Your task to perform on an android device: turn on showing notifications on the lock screen Image 0: 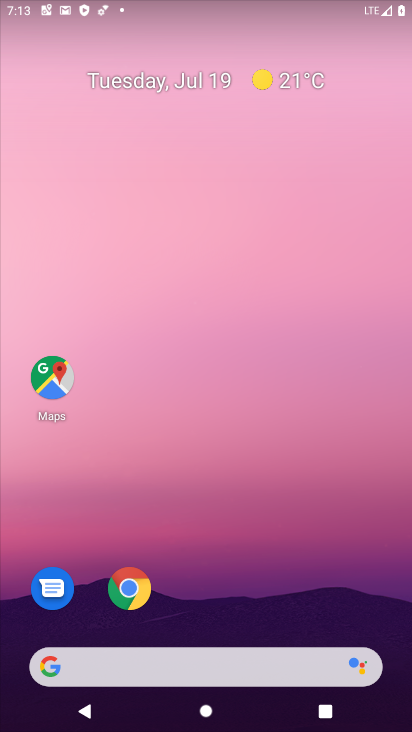
Step 0: drag from (245, 573) to (274, 119)
Your task to perform on an android device: turn on showing notifications on the lock screen Image 1: 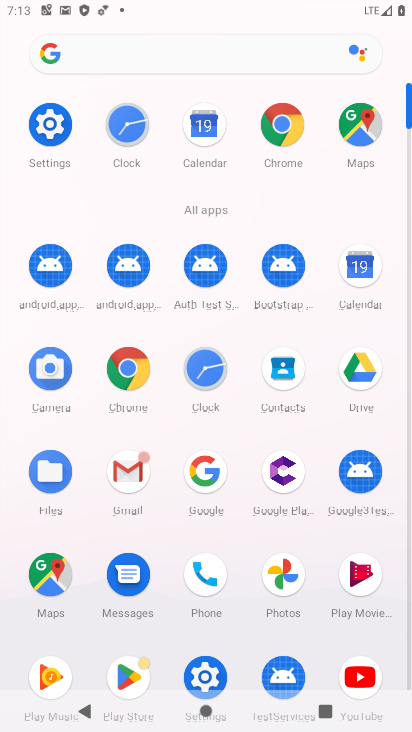
Step 1: drag from (225, 204) to (254, 11)
Your task to perform on an android device: turn on showing notifications on the lock screen Image 2: 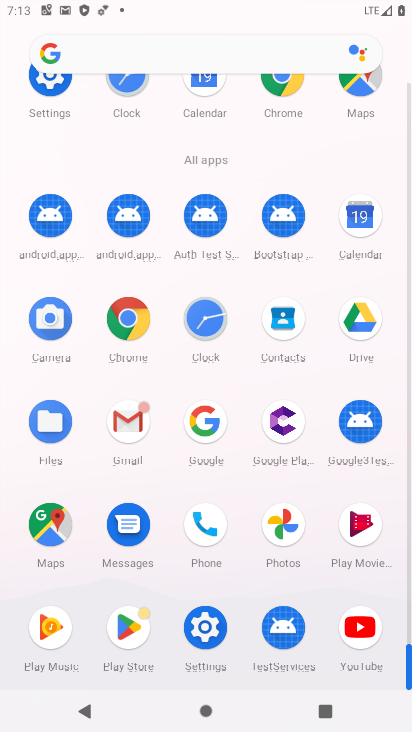
Step 2: click (216, 619)
Your task to perform on an android device: turn on showing notifications on the lock screen Image 3: 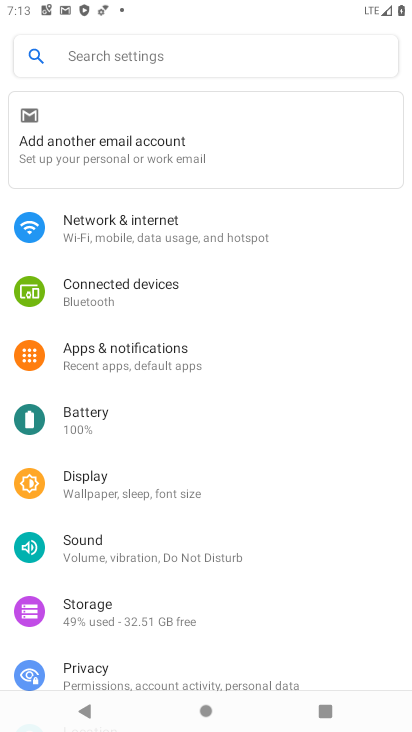
Step 3: drag from (179, 607) to (194, 309)
Your task to perform on an android device: turn on showing notifications on the lock screen Image 4: 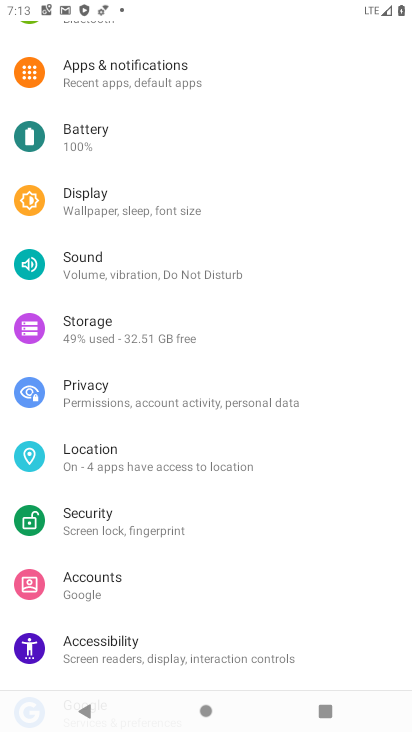
Step 4: drag from (222, 209) to (240, 418)
Your task to perform on an android device: turn on showing notifications on the lock screen Image 5: 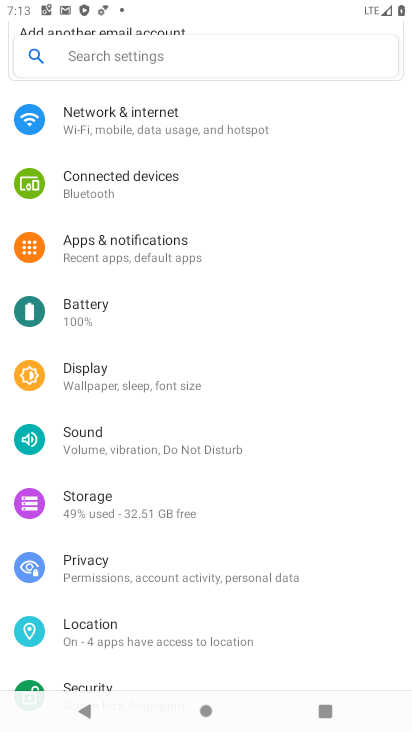
Step 5: click (197, 260)
Your task to perform on an android device: turn on showing notifications on the lock screen Image 6: 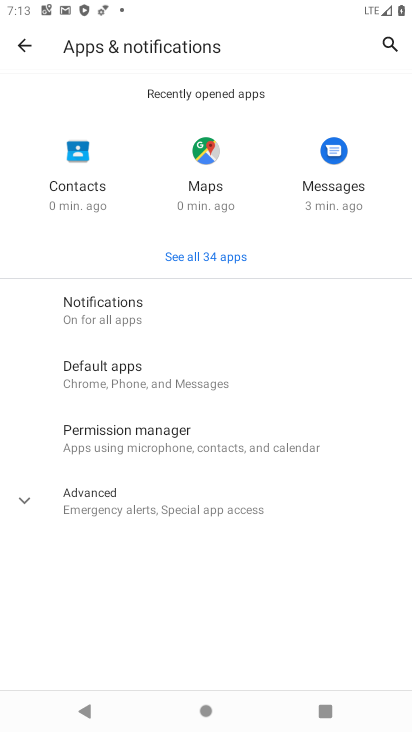
Step 6: click (133, 296)
Your task to perform on an android device: turn on showing notifications on the lock screen Image 7: 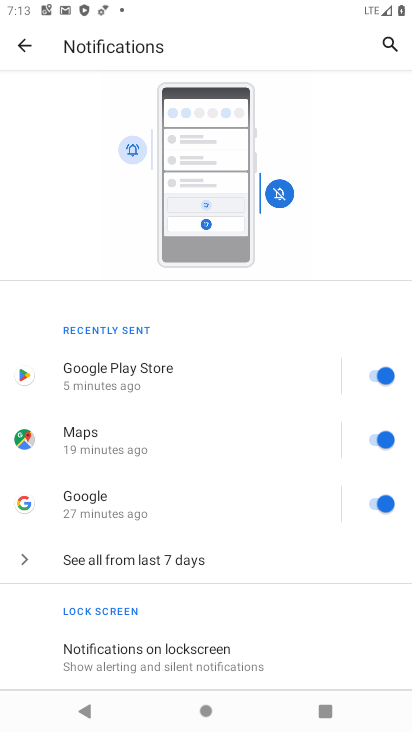
Step 7: click (184, 657)
Your task to perform on an android device: turn on showing notifications on the lock screen Image 8: 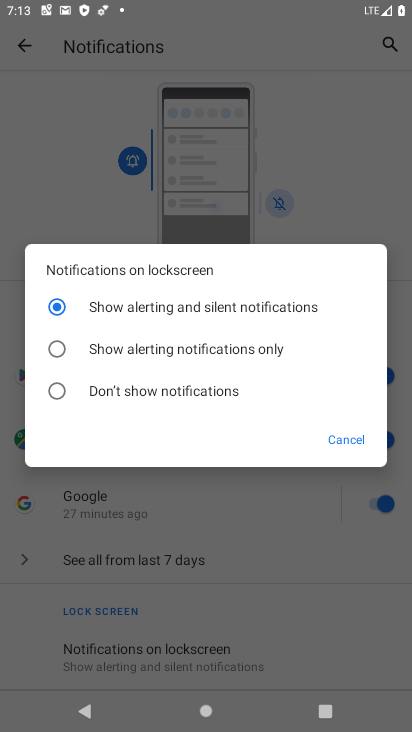
Step 8: click (350, 437)
Your task to perform on an android device: turn on showing notifications on the lock screen Image 9: 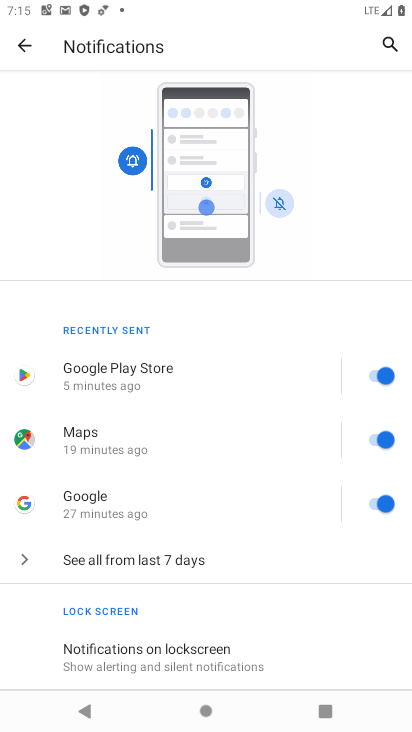
Step 9: task complete